Your task to perform on an android device: Clear the cart on walmart. Add razer nari to the cart on walmart, then select checkout. Image 0: 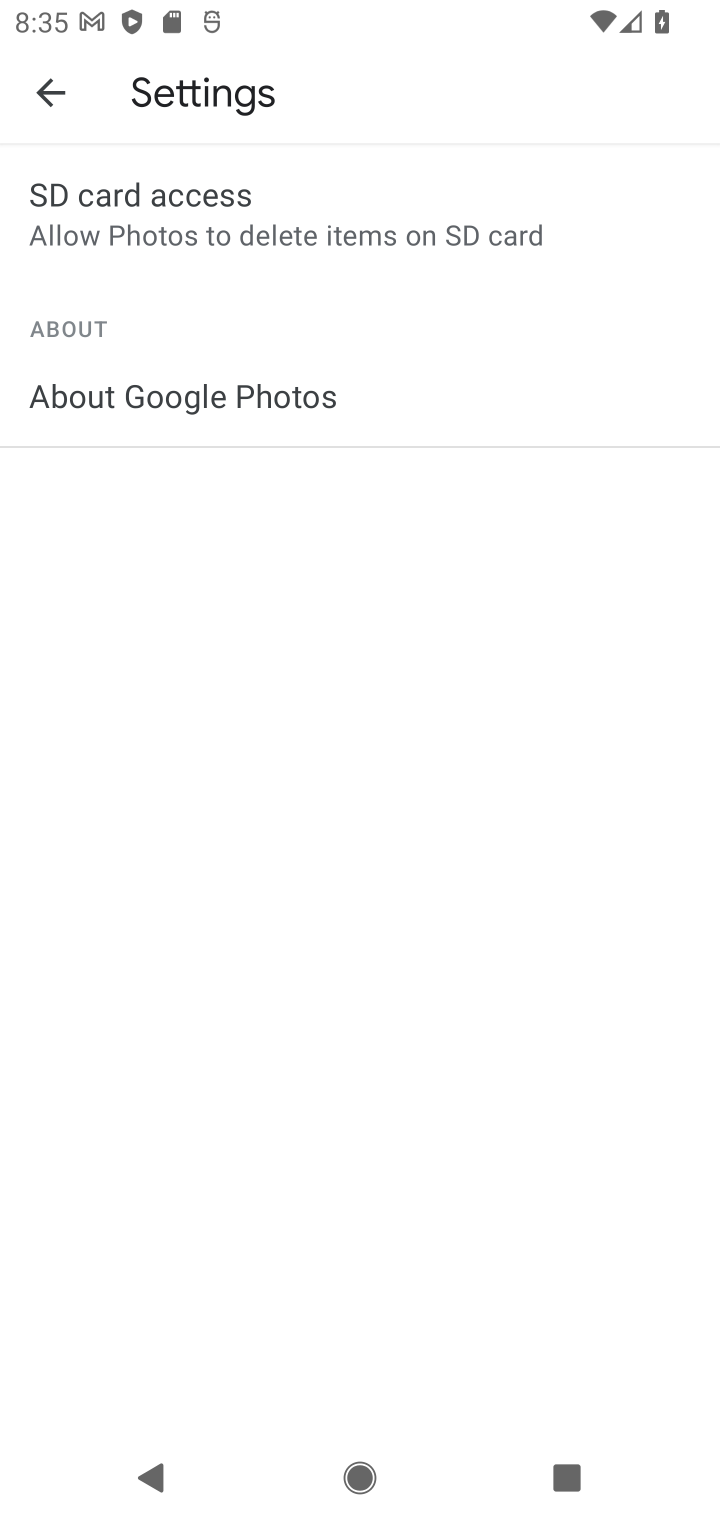
Step 0: press home button
Your task to perform on an android device: Clear the cart on walmart. Add razer nari to the cart on walmart, then select checkout. Image 1: 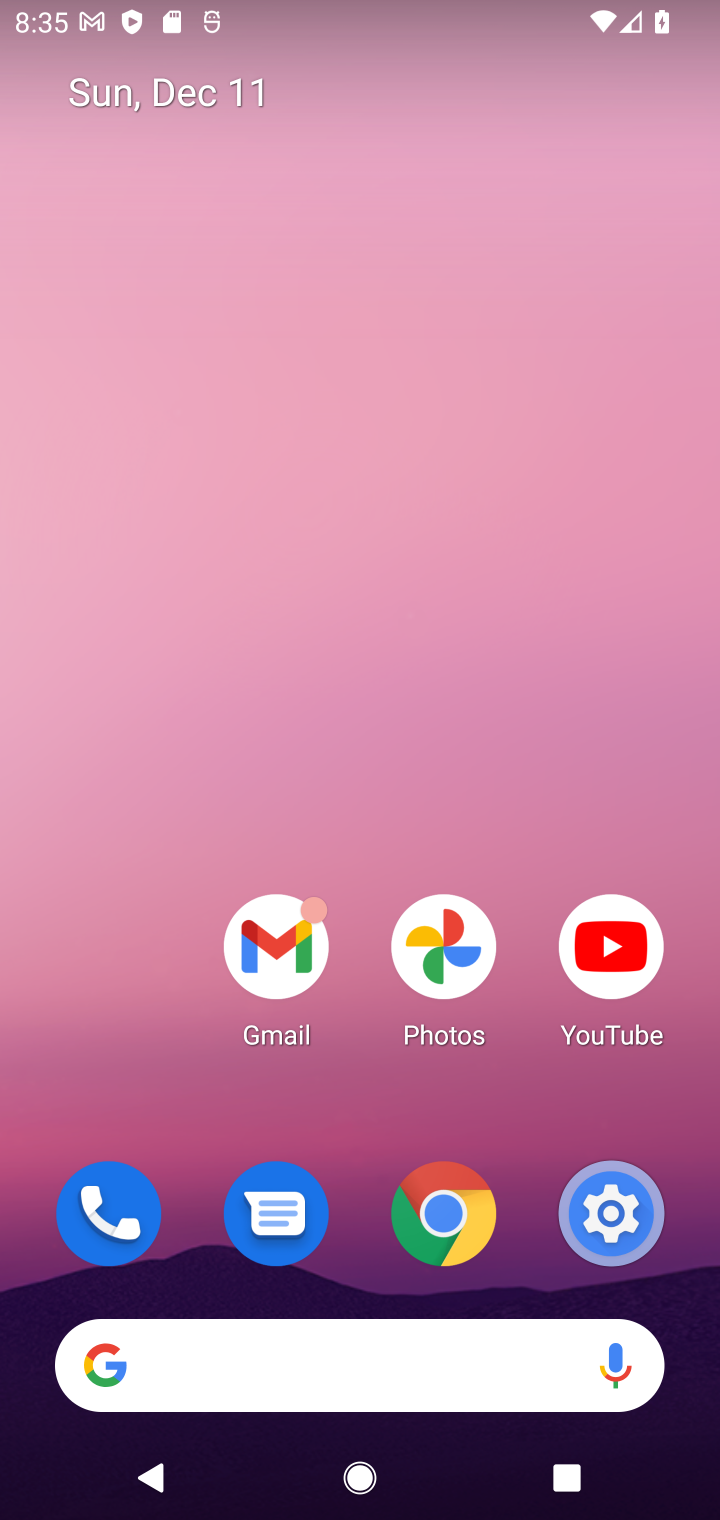
Step 1: click (274, 1357)
Your task to perform on an android device: Clear the cart on walmart. Add razer nari to the cart on walmart, then select checkout. Image 2: 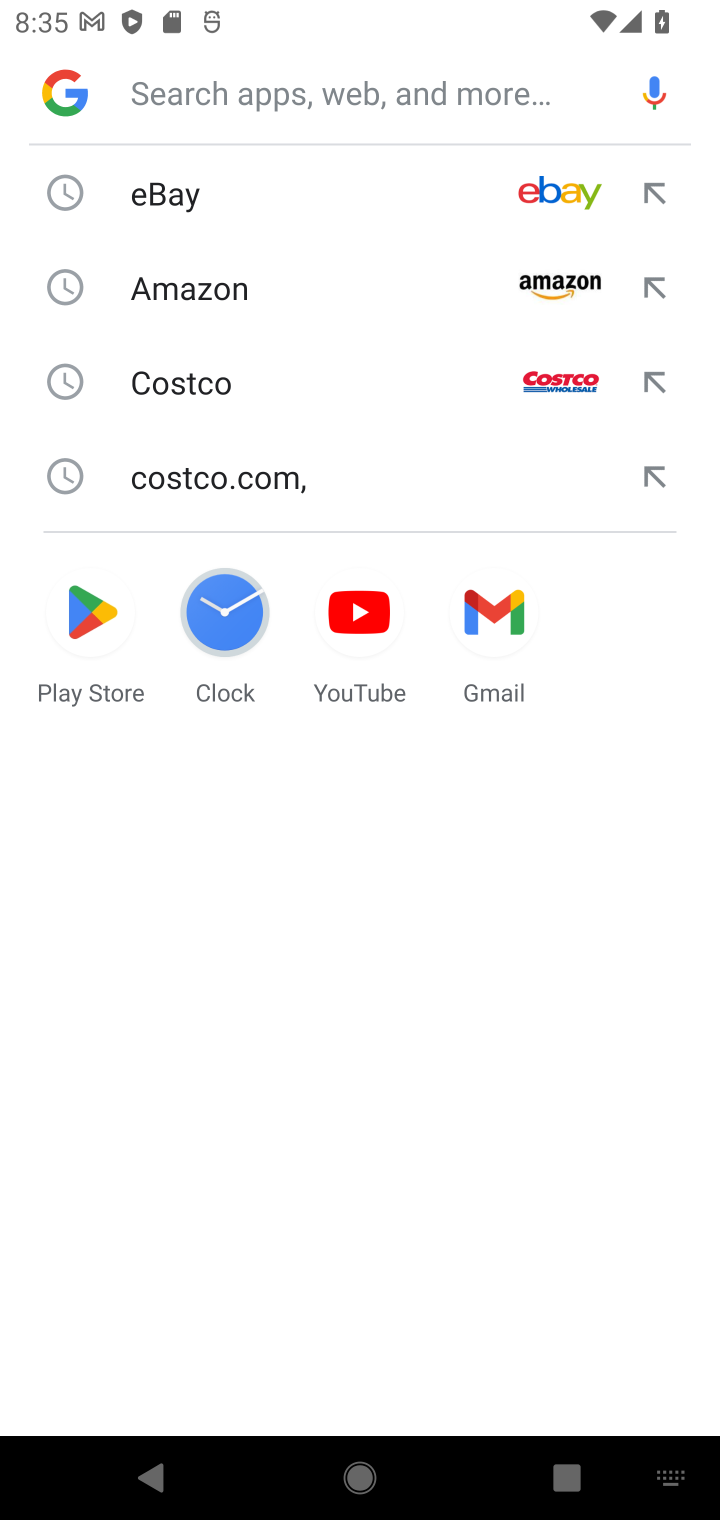
Step 2: press home button
Your task to perform on an android device: Clear the cart on walmart. Add razer nari to the cart on walmart, then select checkout. Image 3: 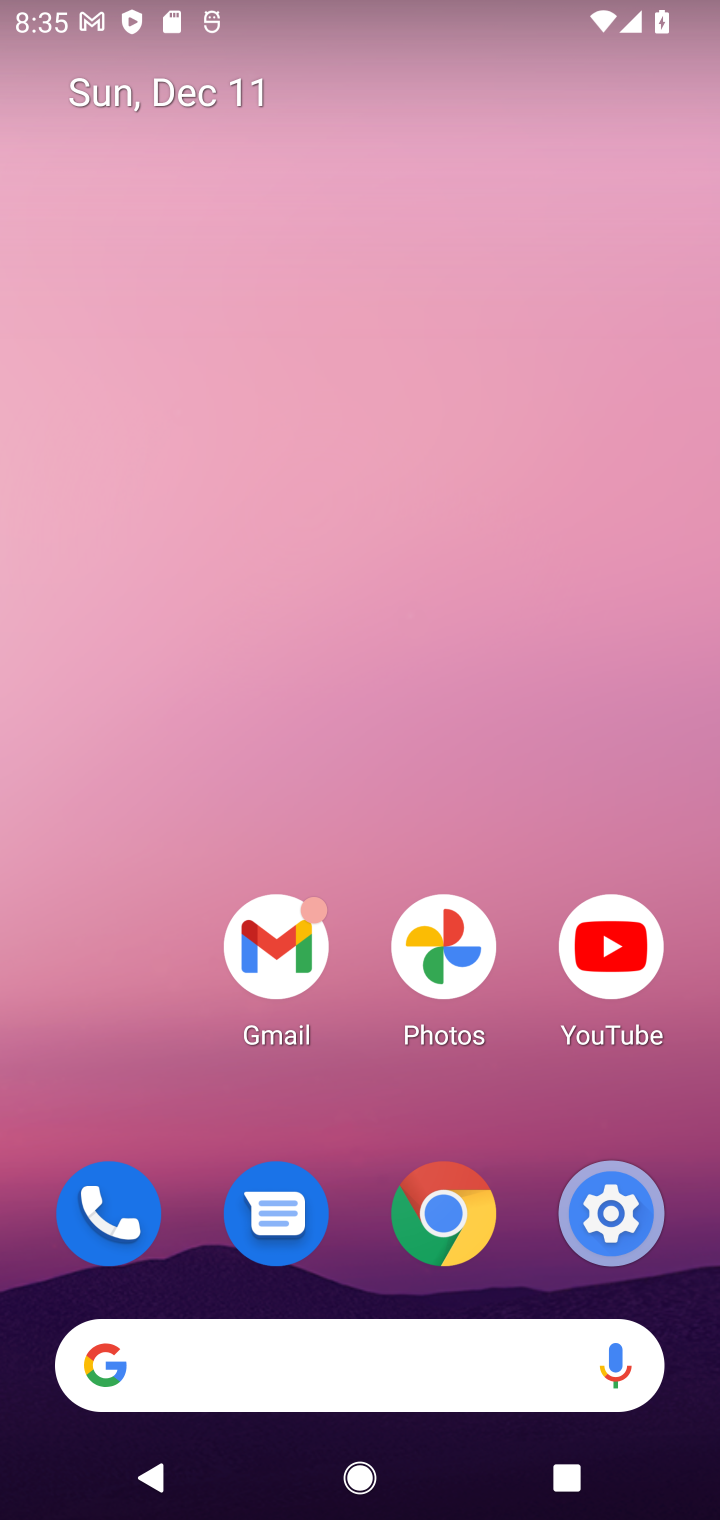
Step 3: click (429, 1351)
Your task to perform on an android device: Clear the cart on walmart. Add razer nari to the cart on walmart, then select checkout. Image 4: 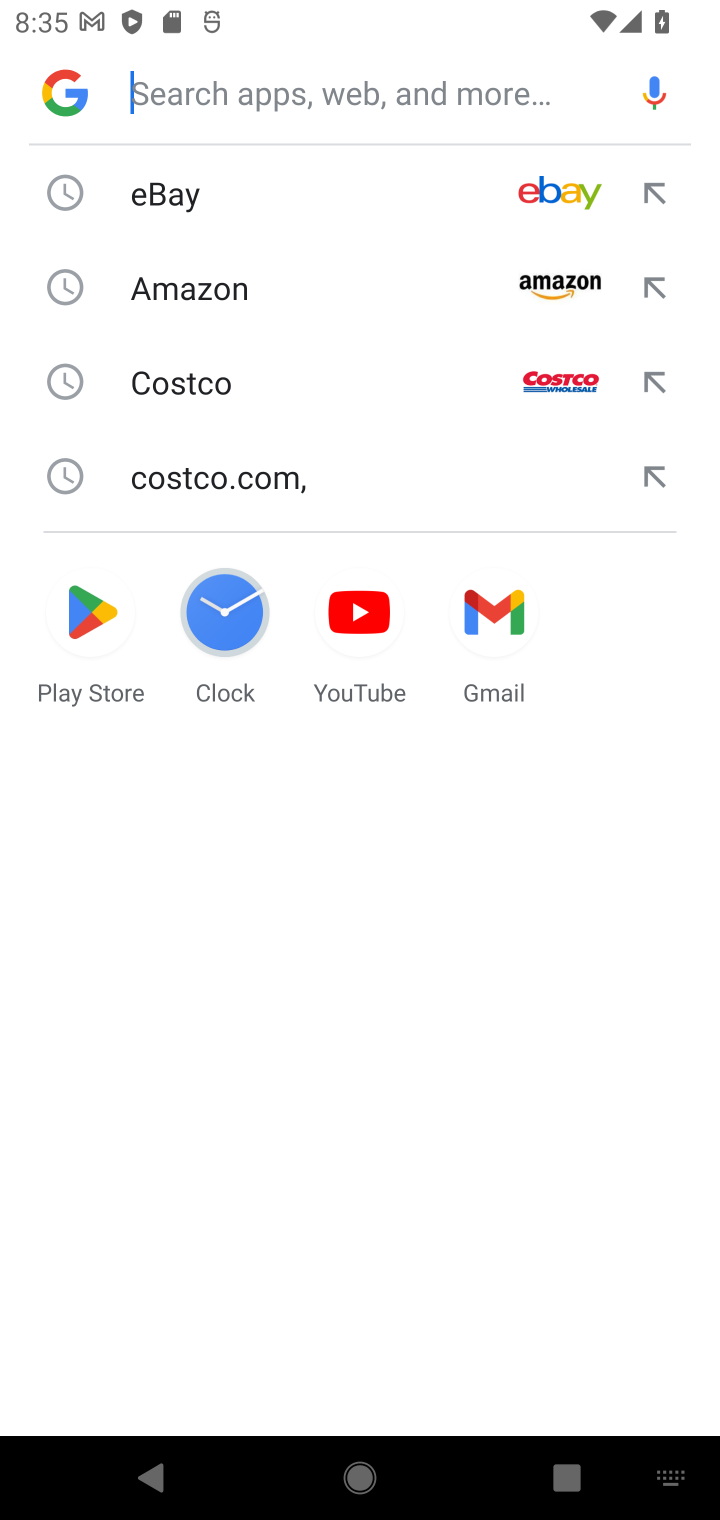
Step 4: type "walmart"
Your task to perform on an android device: Clear the cart on walmart. Add razer nari to the cart on walmart, then select checkout. Image 5: 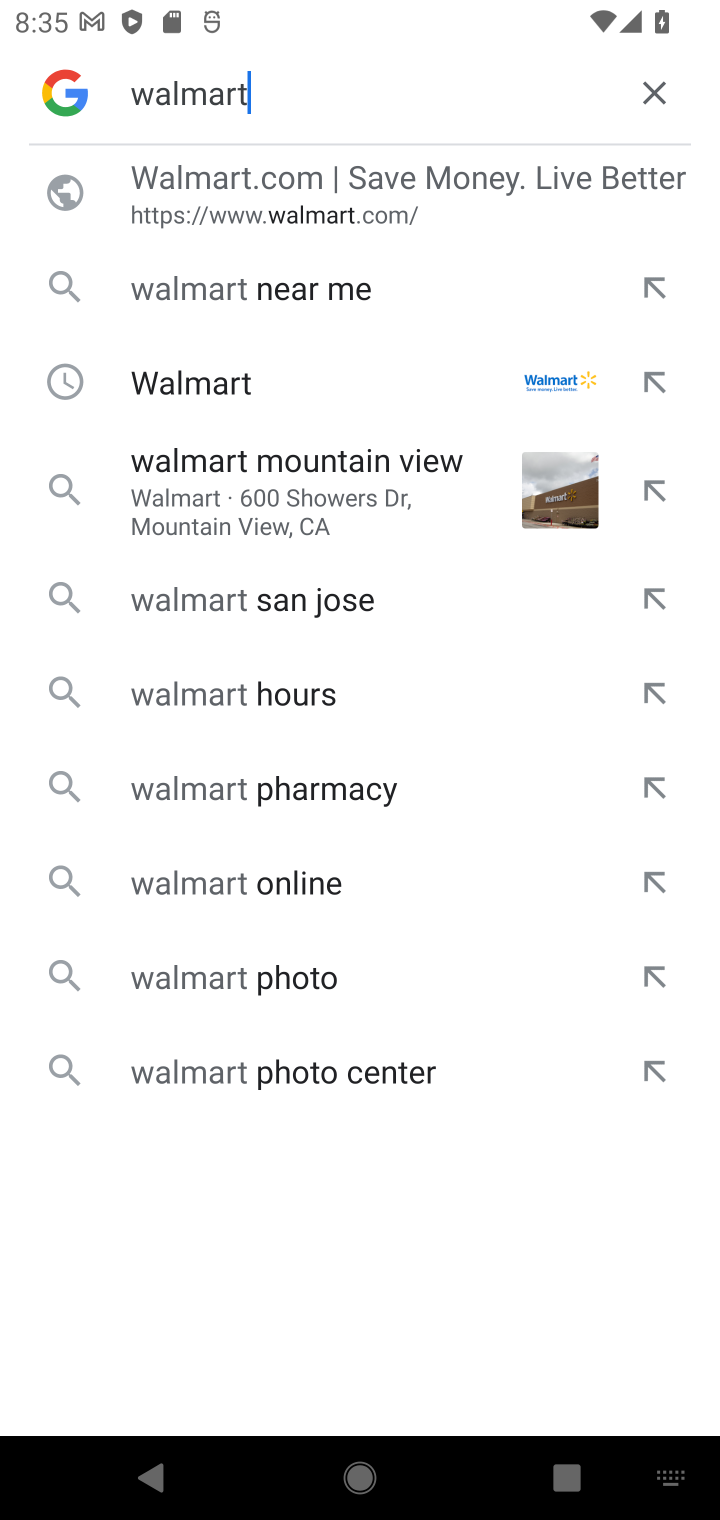
Step 5: click (288, 228)
Your task to perform on an android device: Clear the cart on walmart. Add razer nari to the cart on walmart, then select checkout. Image 6: 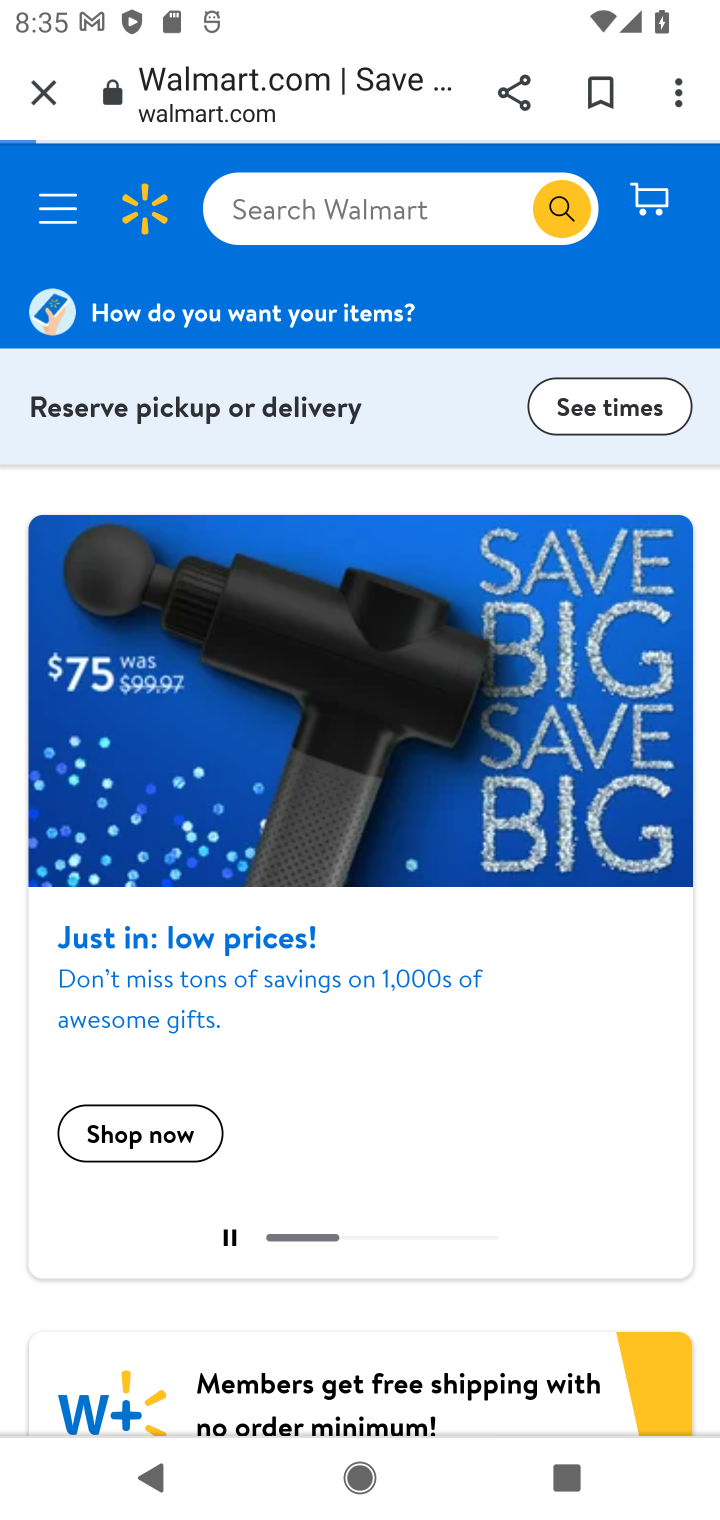
Step 6: click (299, 227)
Your task to perform on an android device: Clear the cart on walmart. Add razer nari to the cart on walmart, then select checkout. Image 7: 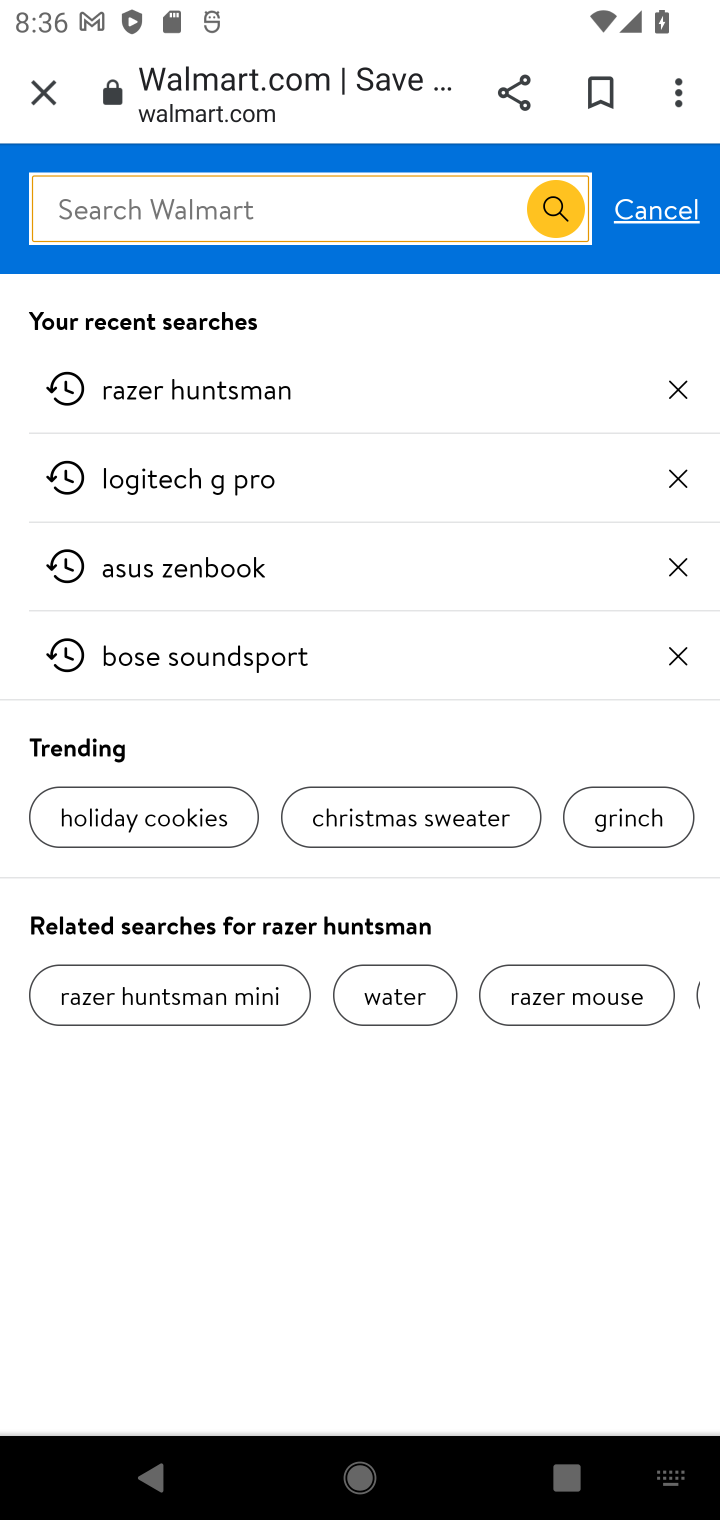
Step 7: type "razer nari"
Your task to perform on an android device: Clear the cart on walmart. Add razer nari to the cart on walmart, then select checkout. Image 8: 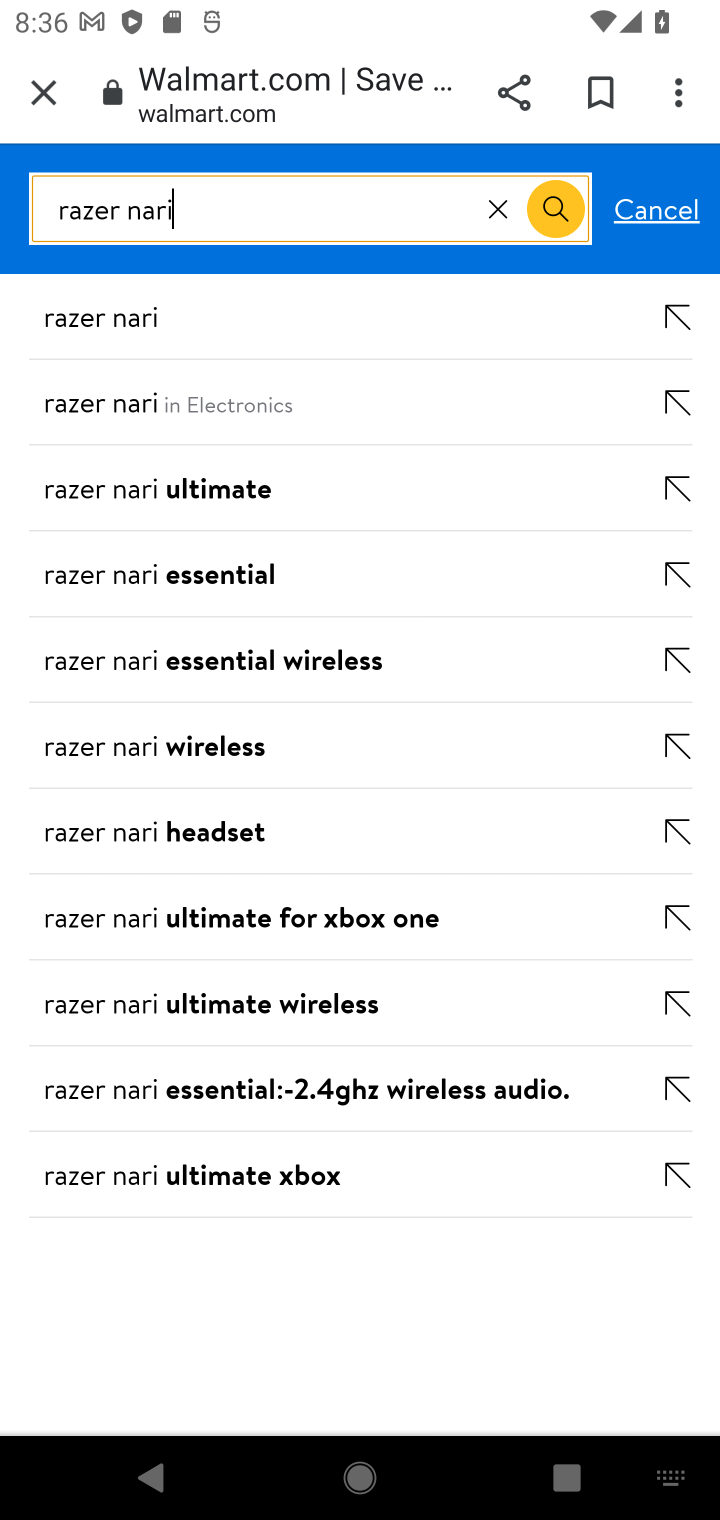
Step 8: click (163, 302)
Your task to perform on an android device: Clear the cart on walmart. Add razer nari to the cart on walmart, then select checkout. Image 9: 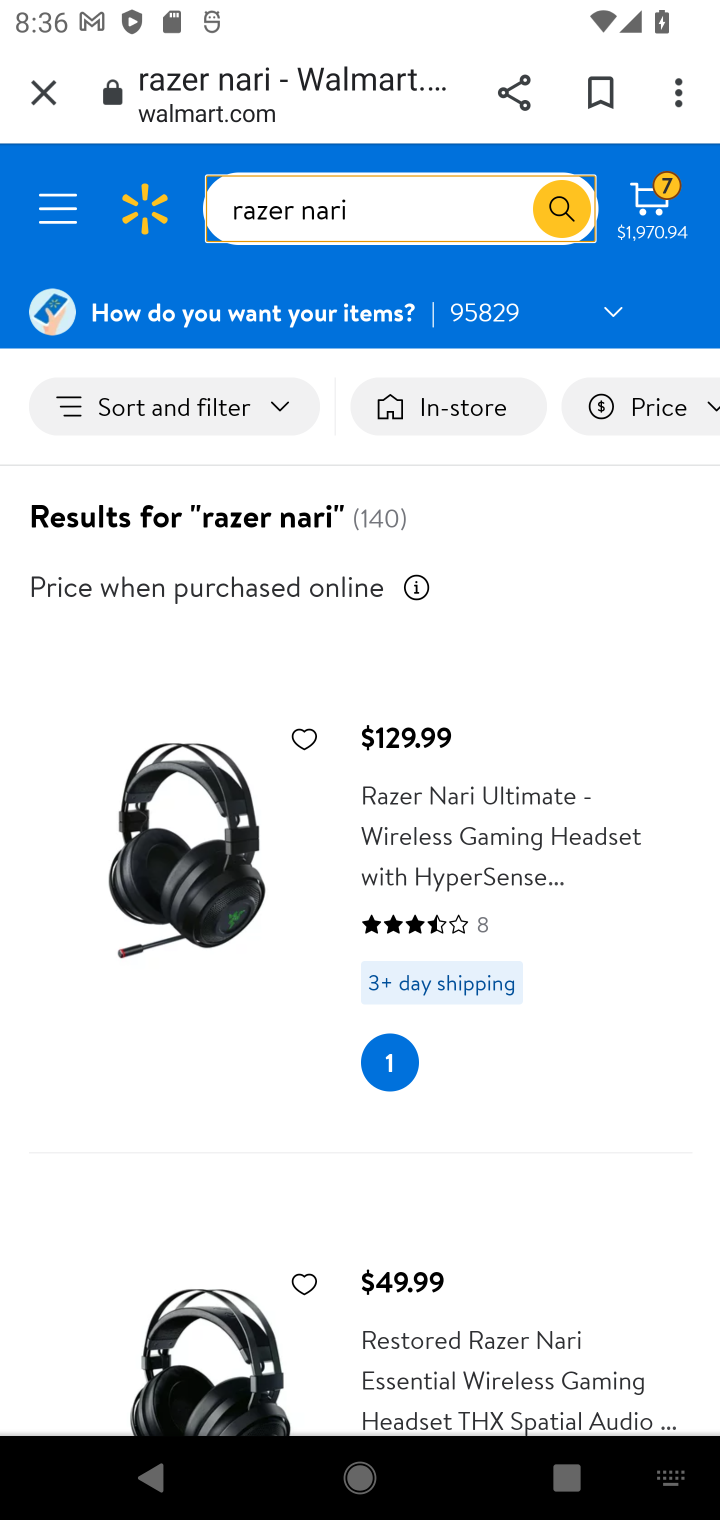
Step 9: click (438, 748)
Your task to perform on an android device: Clear the cart on walmart. Add razer nari to the cart on walmart, then select checkout. Image 10: 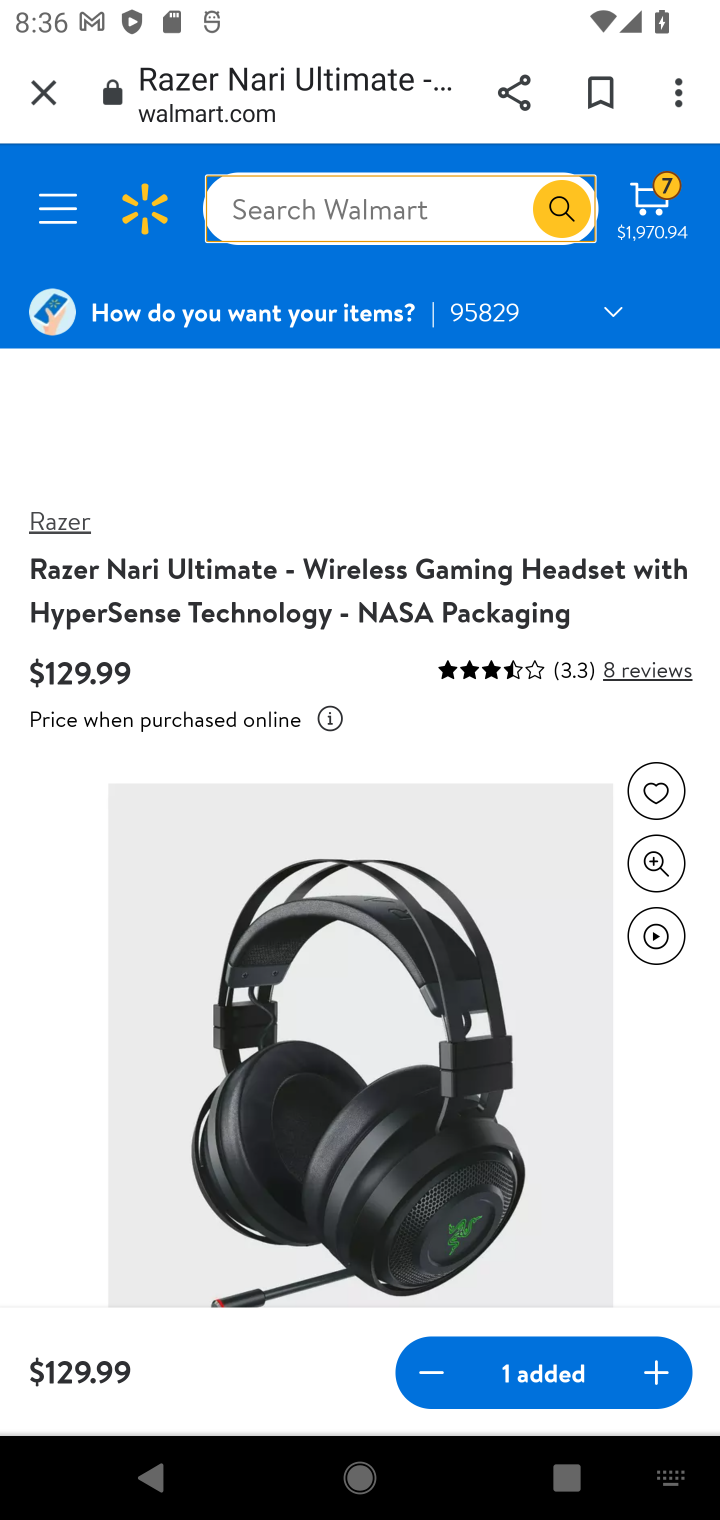
Step 10: task complete